Your task to perform on an android device: Open Amazon Image 0: 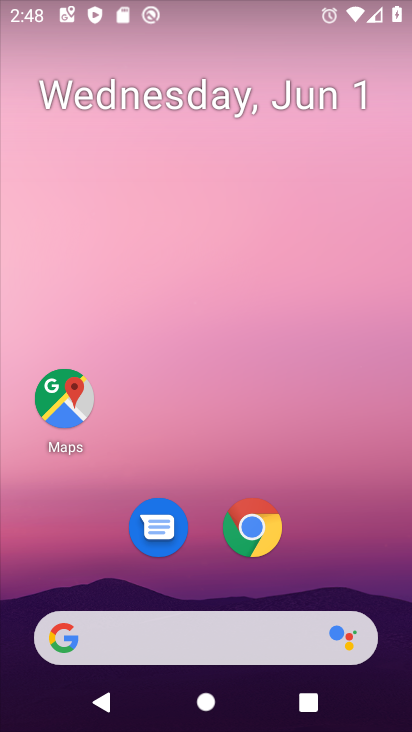
Step 0: click (252, 526)
Your task to perform on an android device: Open Amazon Image 1: 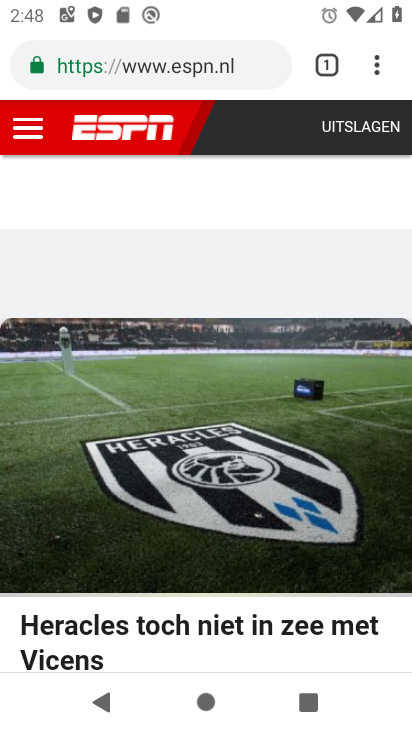
Step 1: click (258, 65)
Your task to perform on an android device: Open Amazon Image 2: 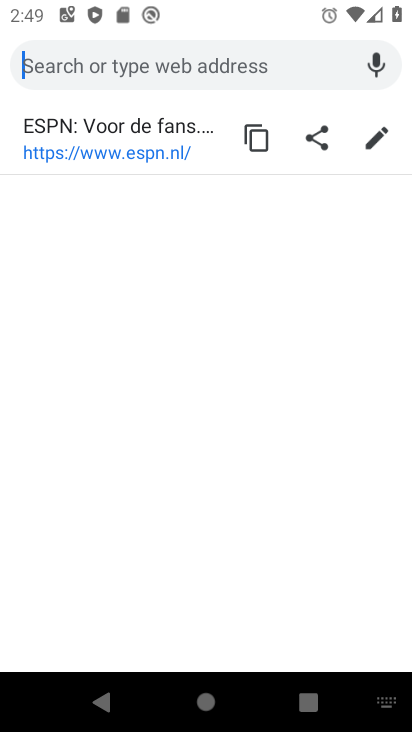
Step 2: type "Amazon"
Your task to perform on an android device: Open Amazon Image 3: 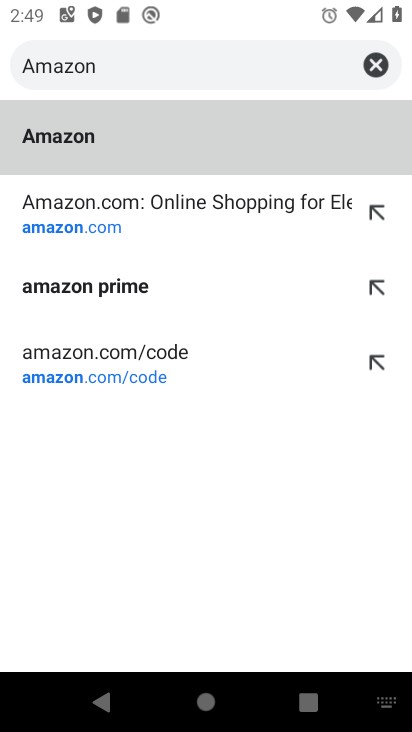
Step 3: click (154, 143)
Your task to perform on an android device: Open Amazon Image 4: 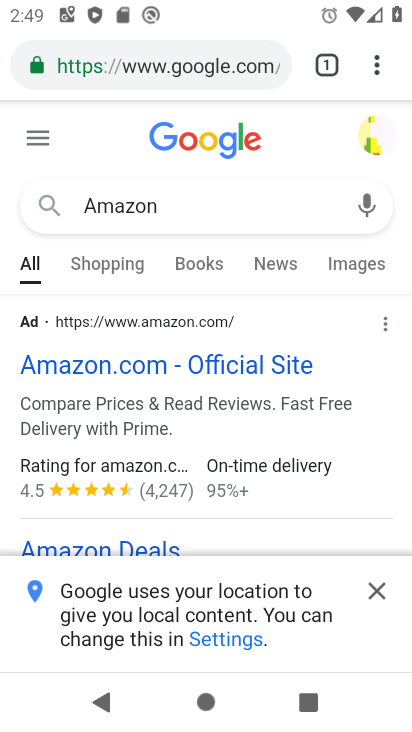
Step 4: click (382, 594)
Your task to perform on an android device: Open Amazon Image 5: 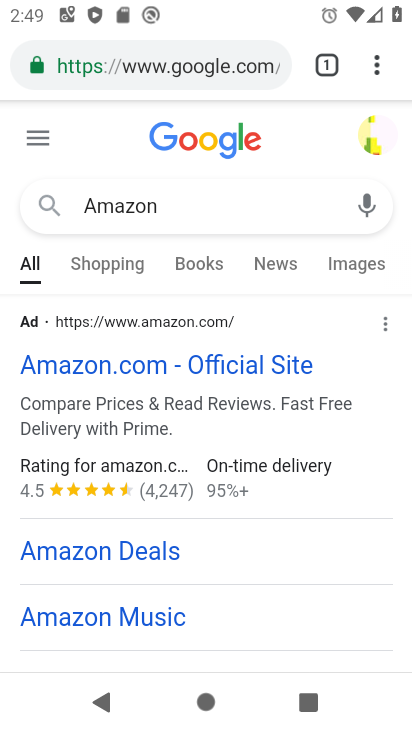
Step 5: click (172, 368)
Your task to perform on an android device: Open Amazon Image 6: 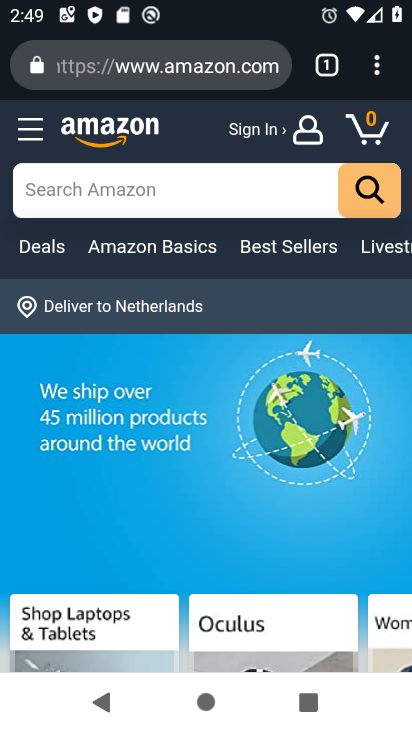
Step 6: task complete